Your task to perform on an android device: visit the assistant section in the google photos Image 0: 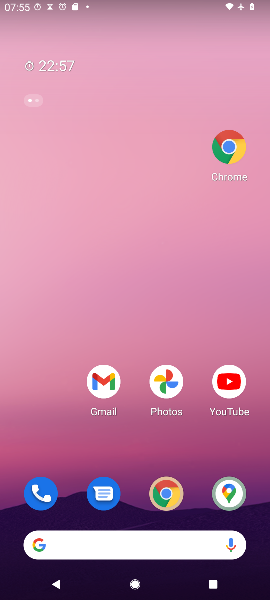
Step 0: press home button
Your task to perform on an android device: visit the assistant section in the google photos Image 1: 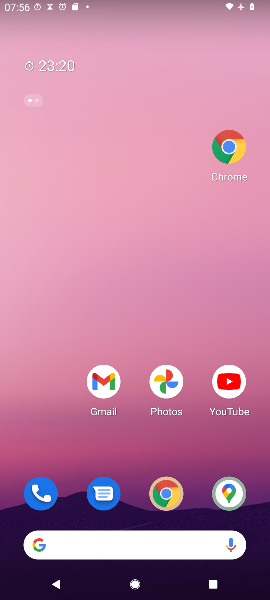
Step 1: click (174, 387)
Your task to perform on an android device: visit the assistant section in the google photos Image 2: 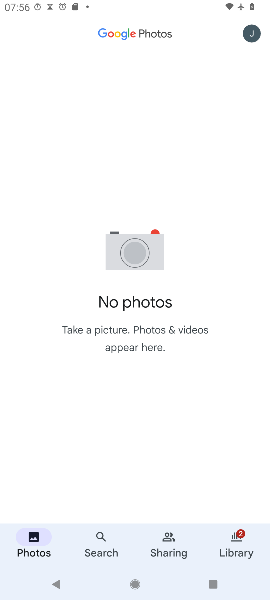
Step 2: task complete